Your task to perform on an android device: Go to Yahoo.com Image 0: 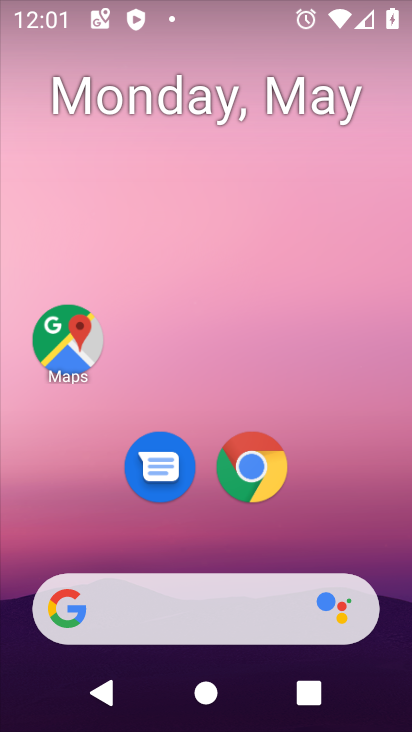
Step 0: drag from (406, 633) to (98, 99)
Your task to perform on an android device: Go to Yahoo.com Image 1: 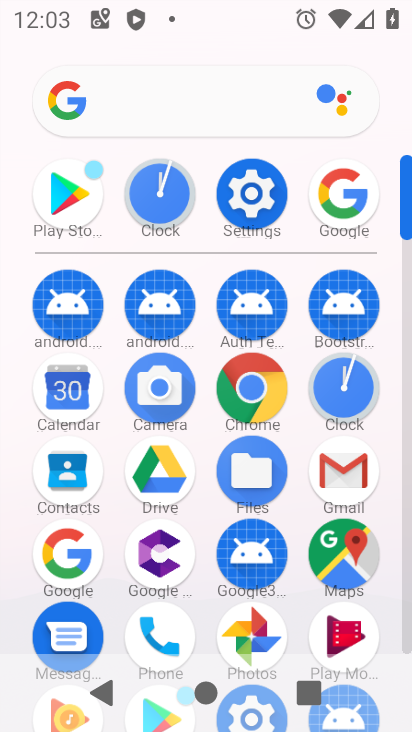
Step 1: click (72, 570)
Your task to perform on an android device: Go to Yahoo.com Image 2: 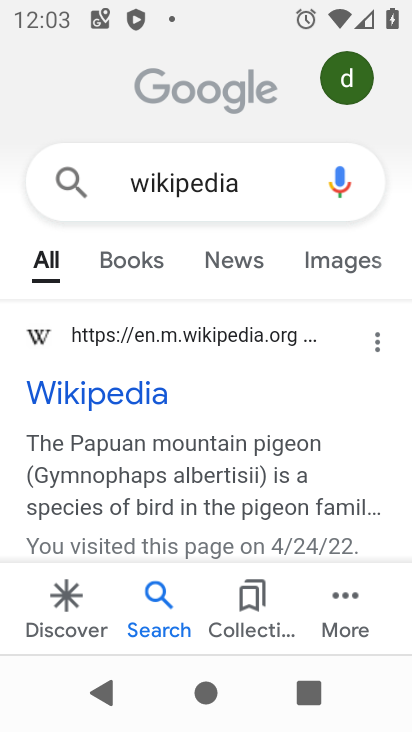
Step 2: press back button
Your task to perform on an android device: Go to Yahoo.com Image 3: 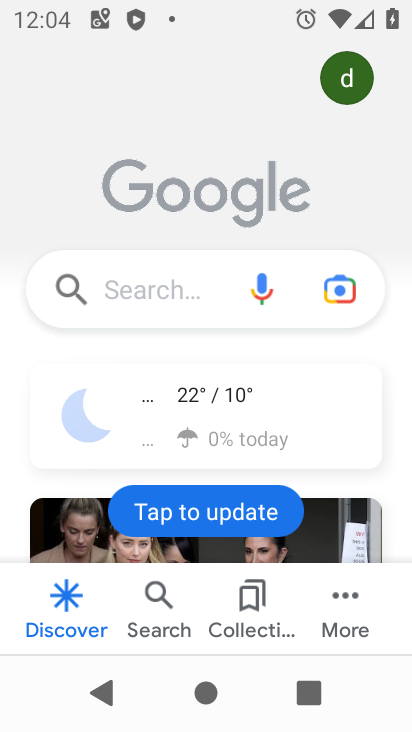
Step 3: click (149, 294)
Your task to perform on an android device: Go to Yahoo.com Image 4: 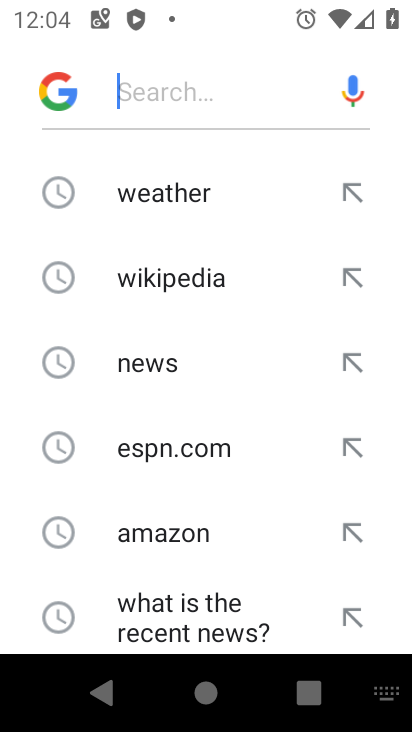
Step 4: drag from (197, 575) to (180, 75)
Your task to perform on an android device: Go to Yahoo.com Image 5: 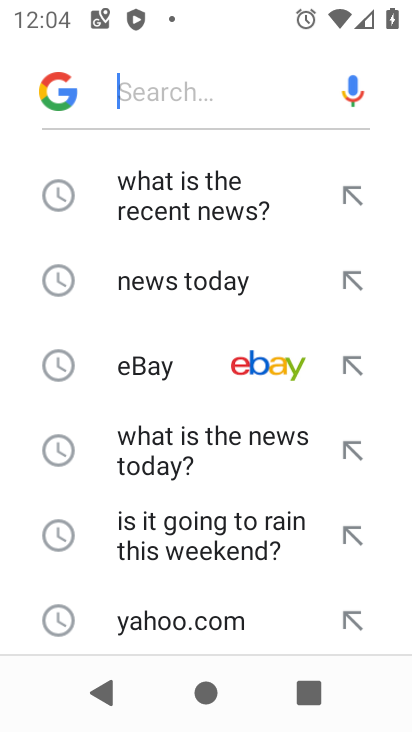
Step 5: click (154, 611)
Your task to perform on an android device: Go to Yahoo.com Image 6: 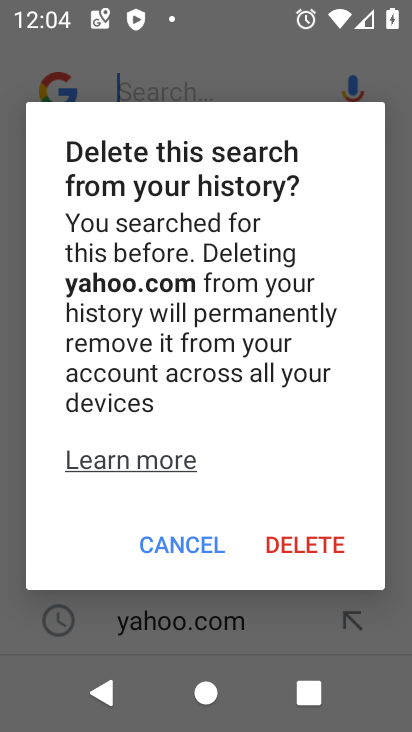
Step 6: click (193, 533)
Your task to perform on an android device: Go to Yahoo.com Image 7: 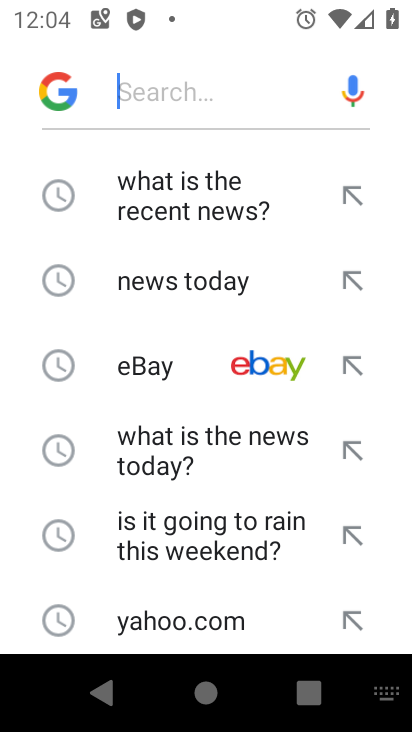
Step 7: click (209, 615)
Your task to perform on an android device: Go to Yahoo.com Image 8: 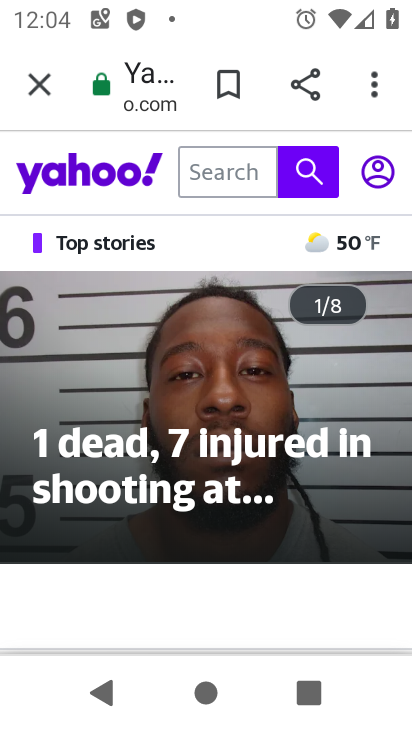
Step 8: task complete